Your task to perform on an android device: change notifications settings Image 0: 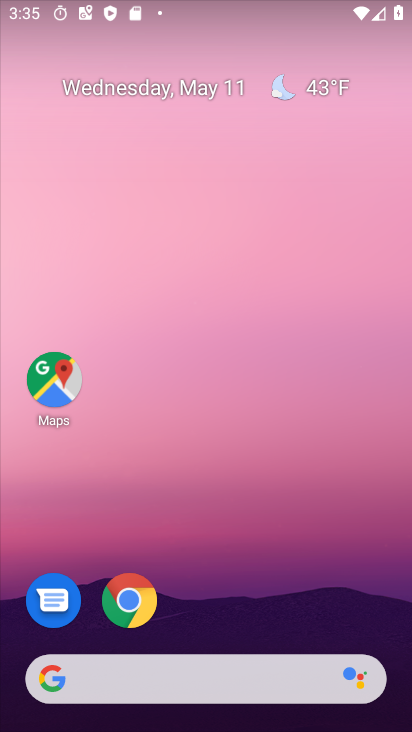
Step 0: drag from (352, 609) to (368, 7)
Your task to perform on an android device: change notifications settings Image 1: 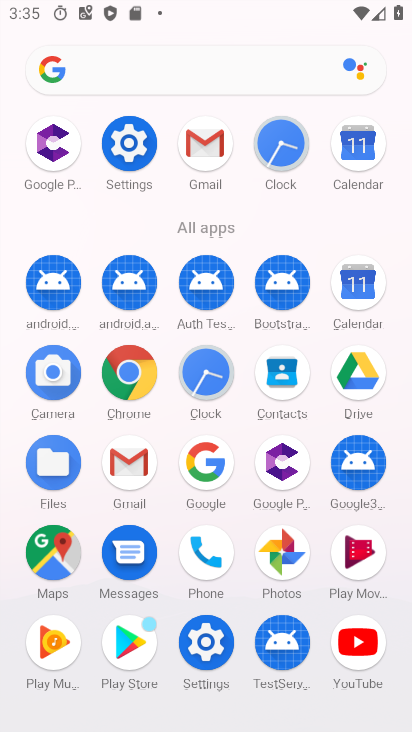
Step 1: click (129, 149)
Your task to perform on an android device: change notifications settings Image 2: 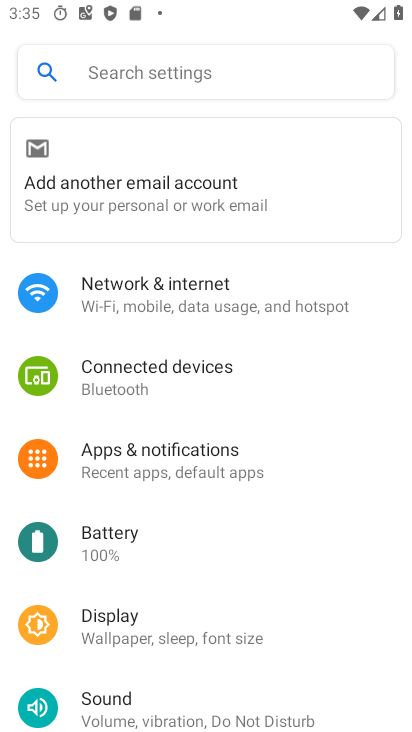
Step 2: click (200, 455)
Your task to perform on an android device: change notifications settings Image 3: 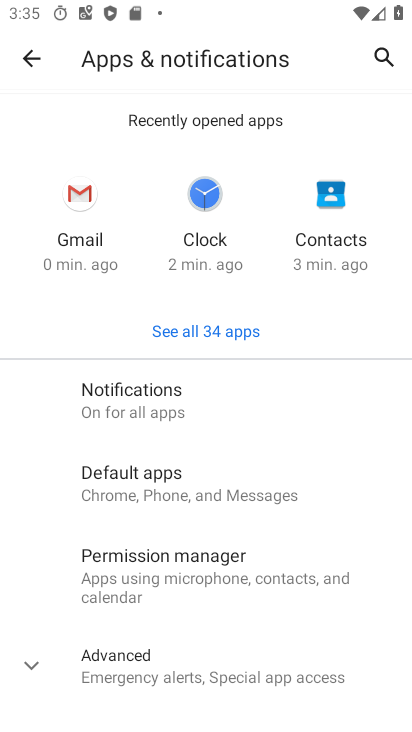
Step 3: click (117, 409)
Your task to perform on an android device: change notifications settings Image 4: 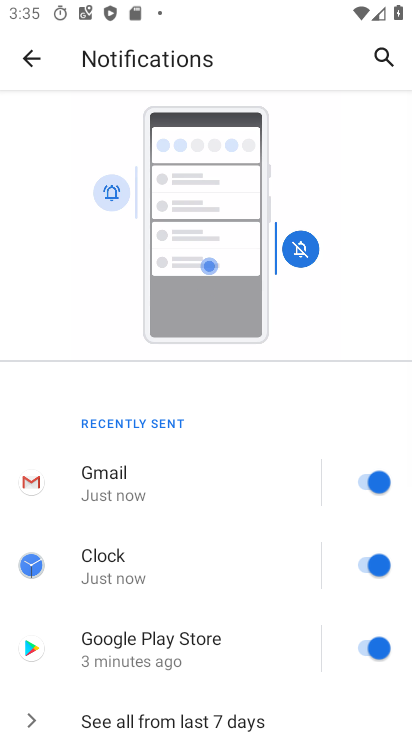
Step 4: drag from (240, 527) to (259, 210)
Your task to perform on an android device: change notifications settings Image 5: 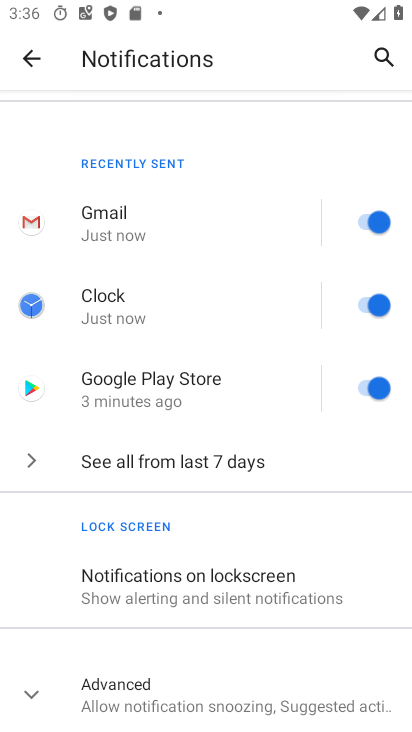
Step 5: click (161, 467)
Your task to perform on an android device: change notifications settings Image 6: 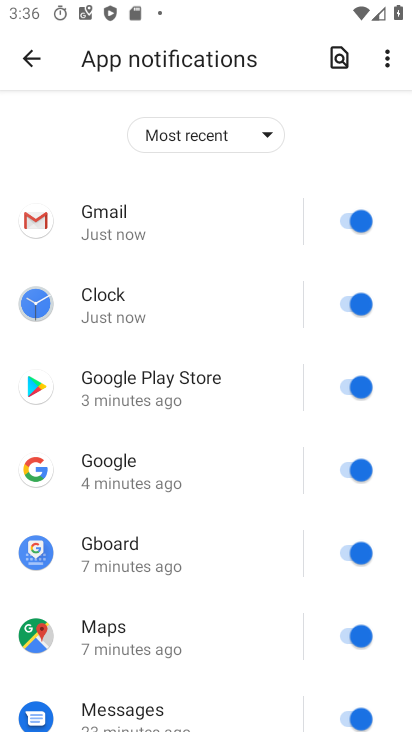
Step 6: click (269, 129)
Your task to perform on an android device: change notifications settings Image 7: 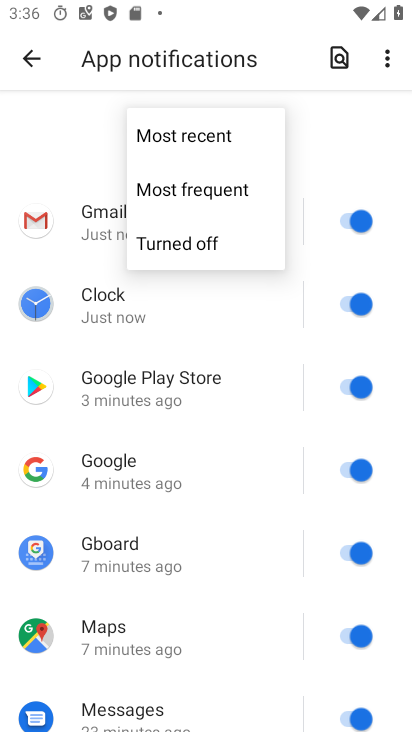
Step 7: click (196, 187)
Your task to perform on an android device: change notifications settings Image 8: 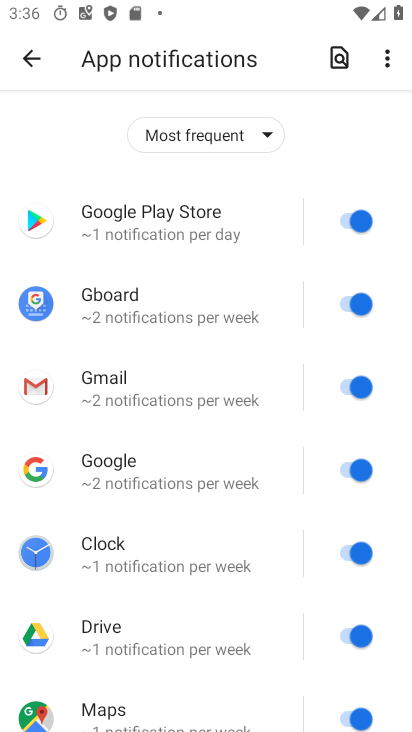
Step 8: task complete